Your task to perform on an android device: turn notification dots off Image 0: 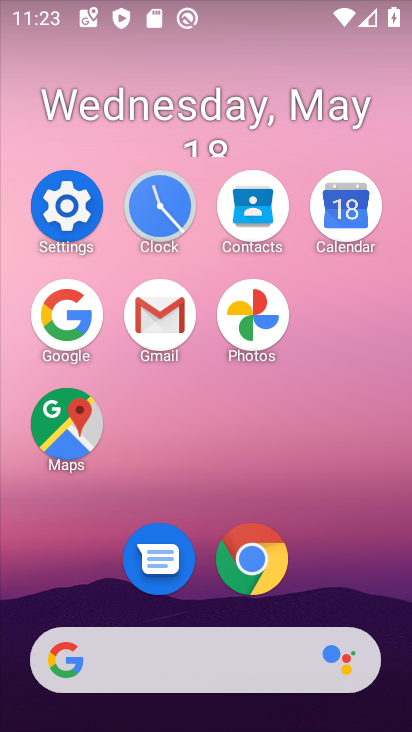
Step 0: click (77, 219)
Your task to perform on an android device: turn notification dots off Image 1: 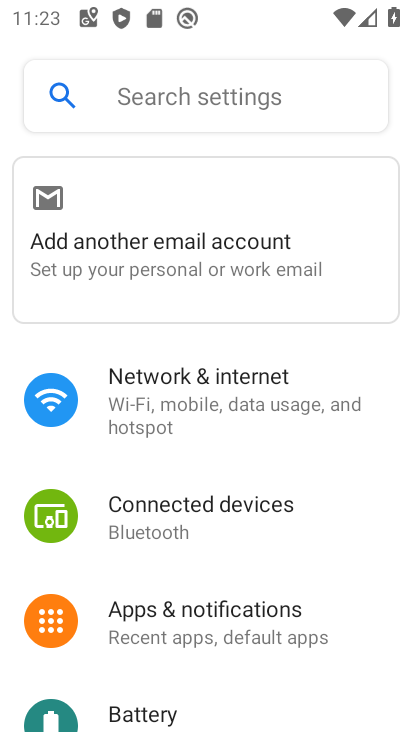
Step 1: click (213, 614)
Your task to perform on an android device: turn notification dots off Image 2: 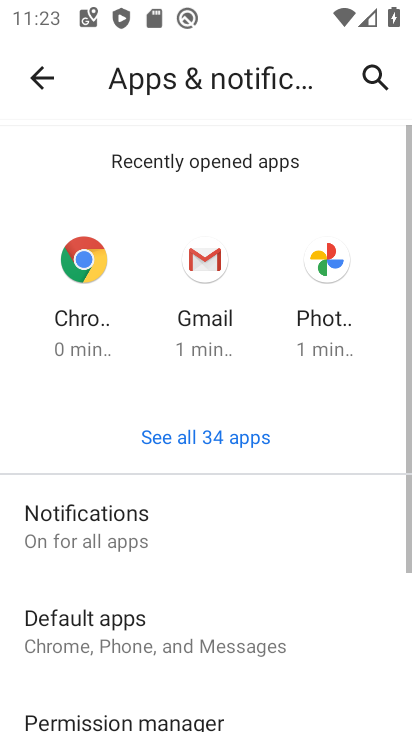
Step 2: click (158, 540)
Your task to perform on an android device: turn notification dots off Image 3: 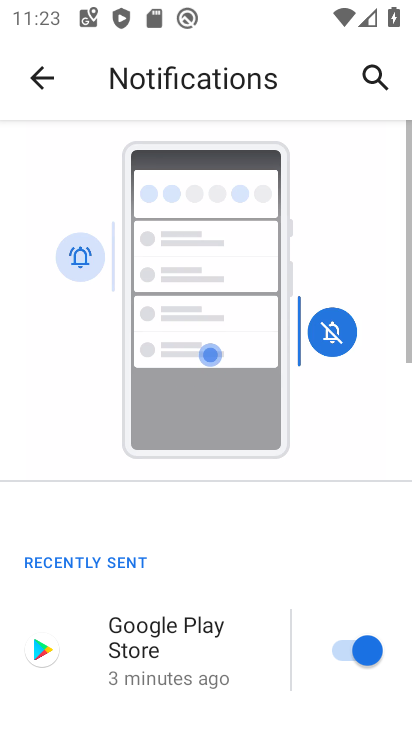
Step 3: drag from (234, 609) to (287, 189)
Your task to perform on an android device: turn notification dots off Image 4: 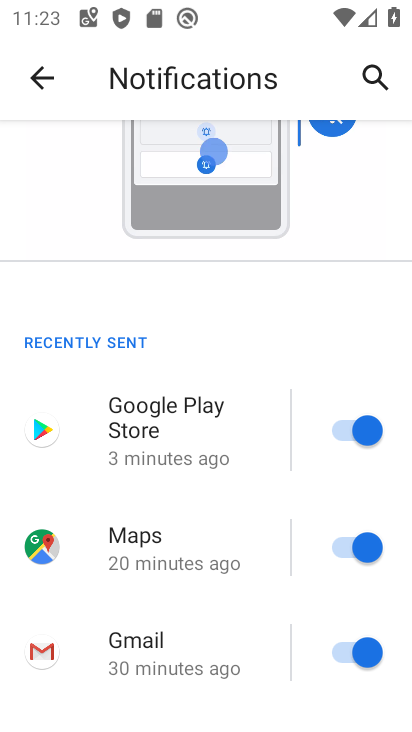
Step 4: drag from (225, 639) to (269, 156)
Your task to perform on an android device: turn notification dots off Image 5: 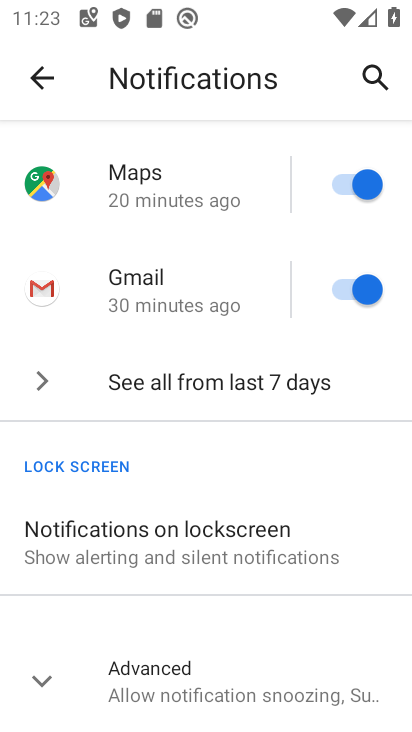
Step 5: drag from (209, 609) to (259, 233)
Your task to perform on an android device: turn notification dots off Image 6: 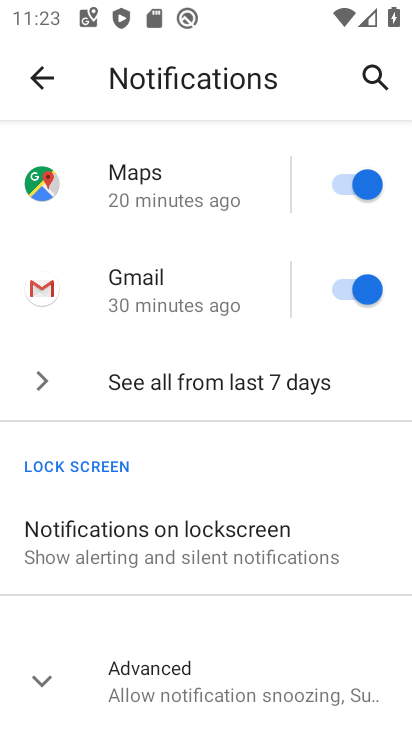
Step 6: click (170, 663)
Your task to perform on an android device: turn notification dots off Image 7: 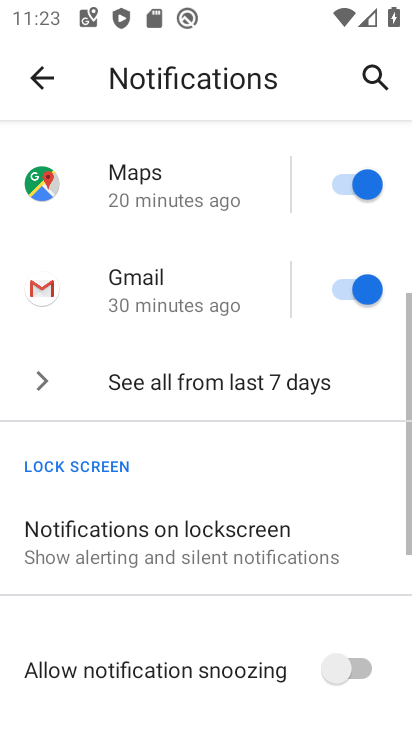
Step 7: drag from (170, 663) to (203, 241)
Your task to perform on an android device: turn notification dots off Image 8: 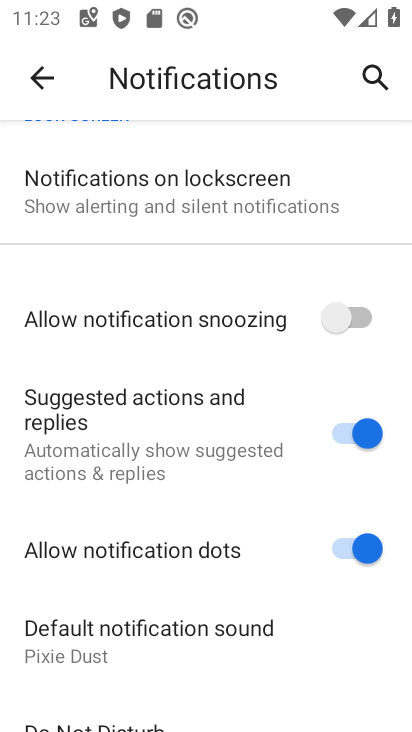
Step 8: click (360, 566)
Your task to perform on an android device: turn notification dots off Image 9: 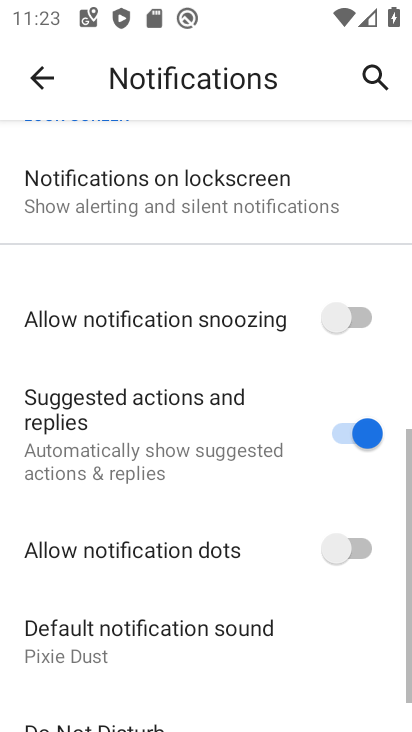
Step 9: task complete